Your task to perform on an android device: Is it going to rain this weekend? Image 0: 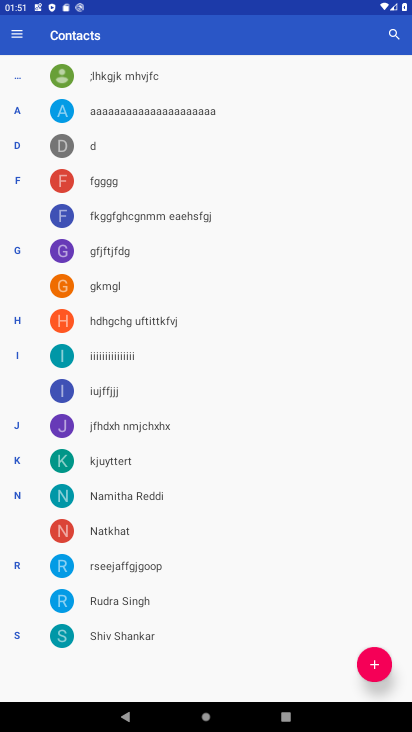
Step 0: press home button
Your task to perform on an android device: Is it going to rain this weekend? Image 1: 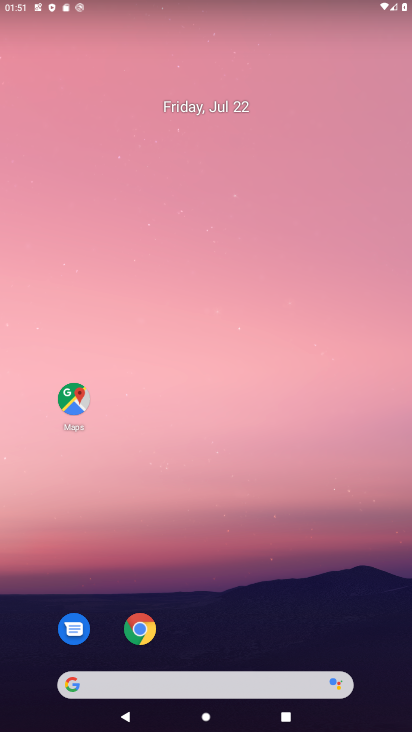
Step 1: drag from (269, 600) to (344, 142)
Your task to perform on an android device: Is it going to rain this weekend? Image 2: 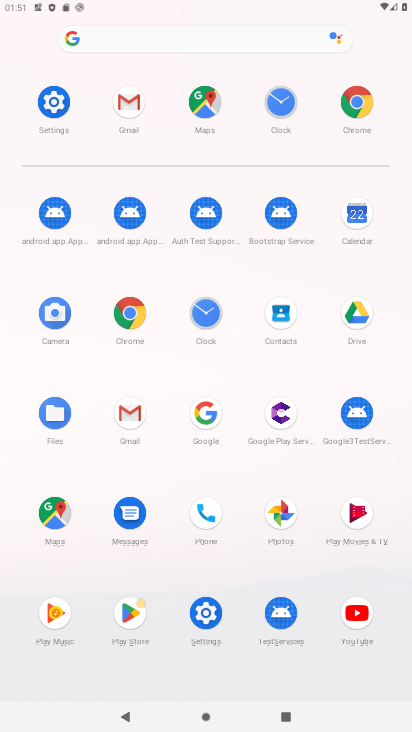
Step 2: click (132, 313)
Your task to perform on an android device: Is it going to rain this weekend? Image 3: 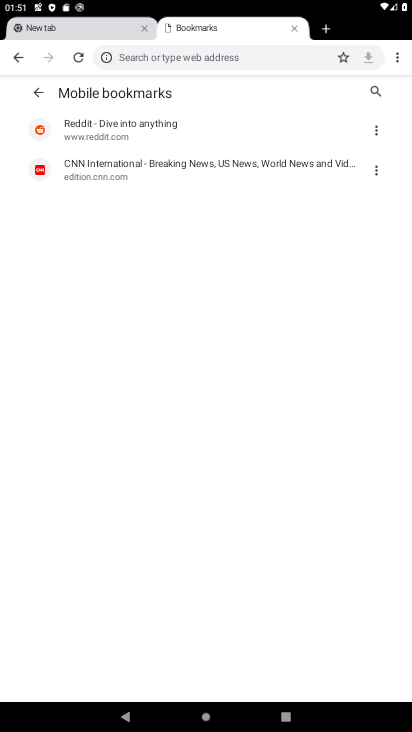
Step 3: click (336, 26)
Your task to perform on an android device: Is it going to rain this weekend? Image 4: 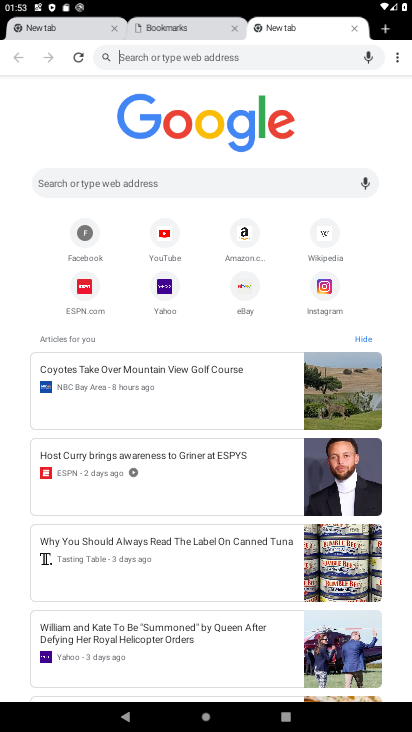
Step 4: press home button
Your task to perform on an android device: Is it going to rain this weekend? Image 5: 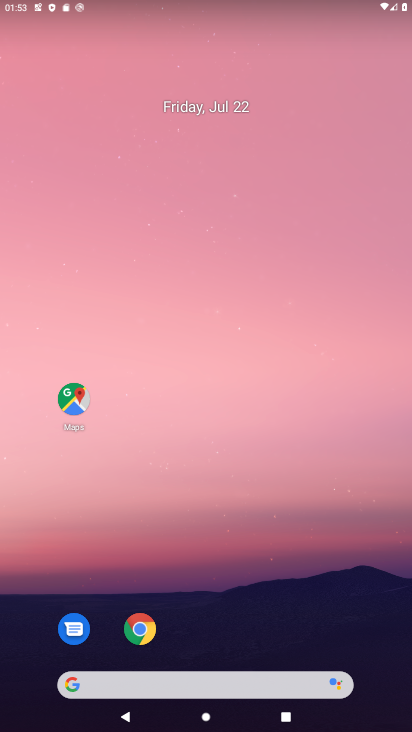
Step 5: click (129, 686)
Your task to perform on an android device: Is it going to rain this weekend? Image 6: 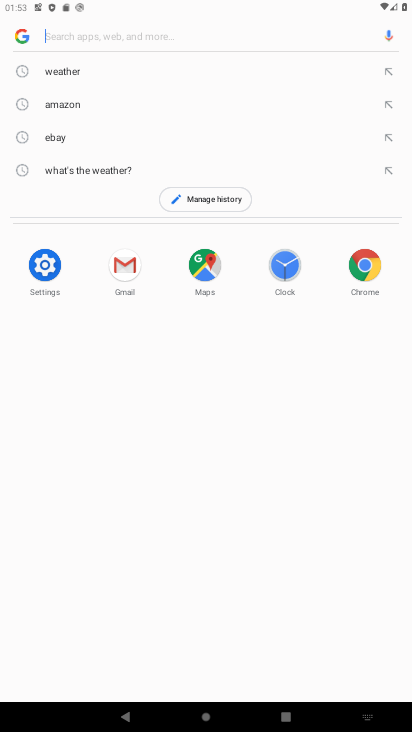
Step 6: click (54, 80)
Your task to perform on an android device: Is it going to rain this weekend? Image 7: 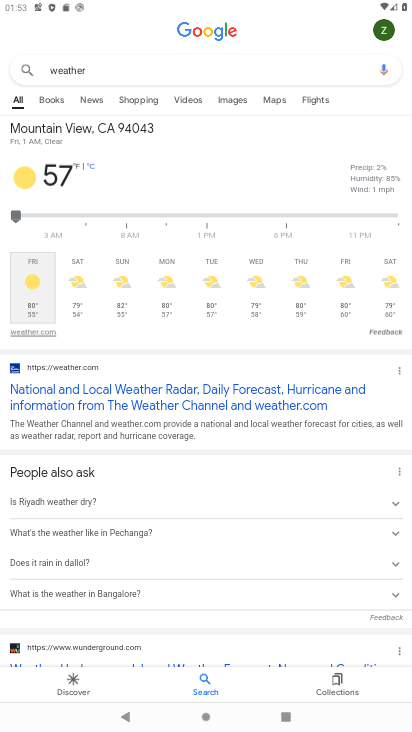
Step 7: task complete